Your task to perform on an android device: Do I have any events today? Image 0: 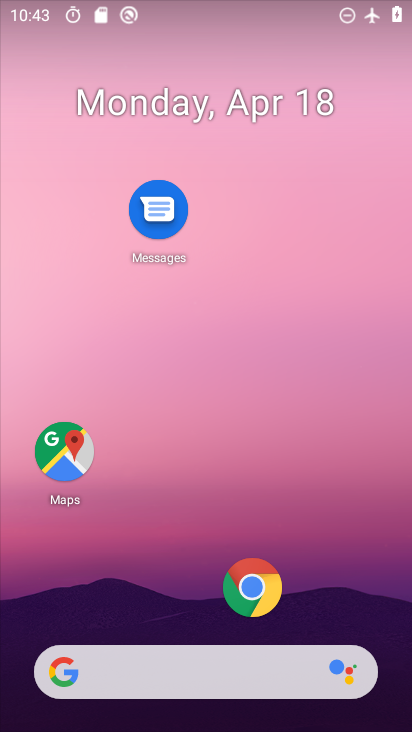
Step 0: drag from (181, 623) to (267, 40)
Your task to perform on an android device: Do I have any events today? Image 1: 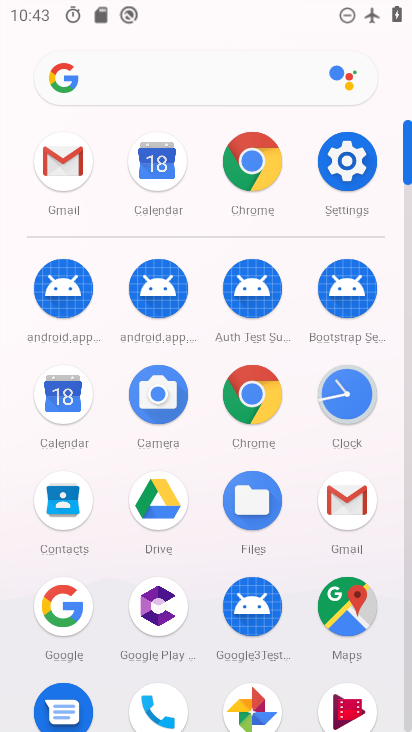
Step 1: click (63, 409)
Your task to perform on an android device: Do I have any events today? Image 2: 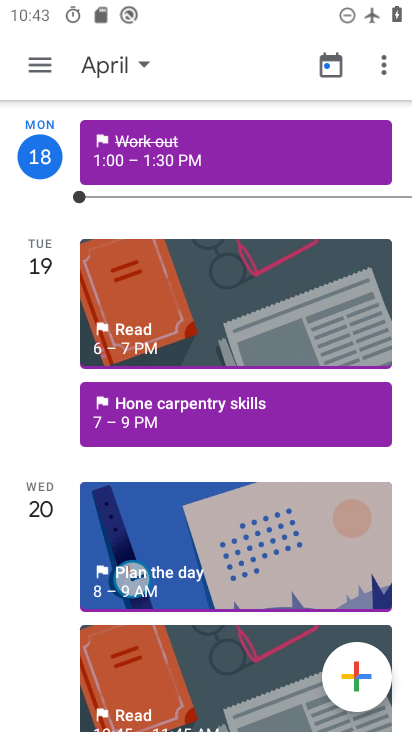
Step 2: drag from (186, 507) to (217, 265)
Your task to perform on an android device: Do I have any events today? Image 3: 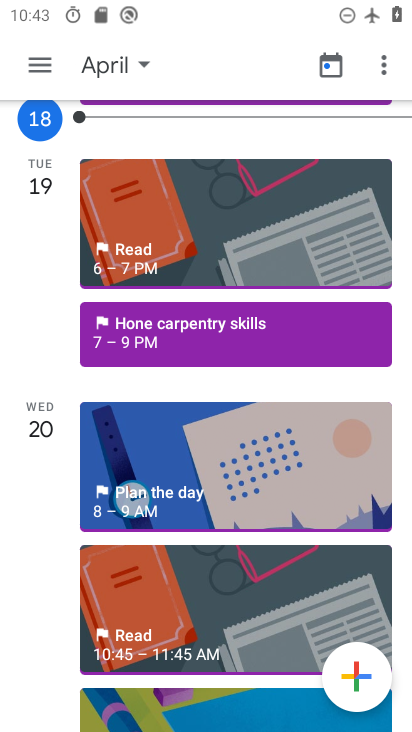
Step 3: drag from (187, 302) to (188, 521)
Your task to perform on an android device: Do I have any events today? Image 4: 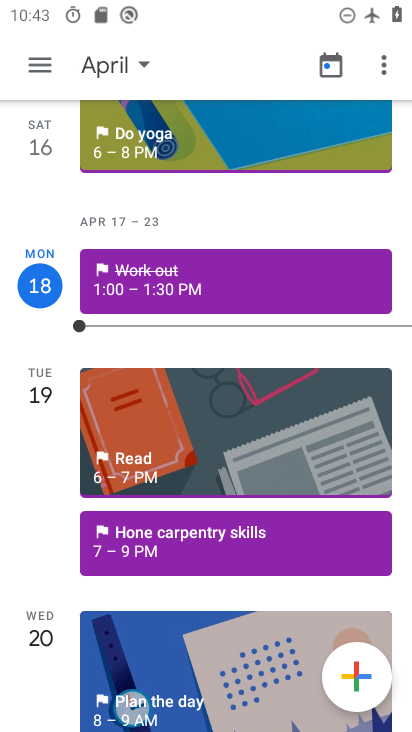
Step 4: click (181, 282)
Your task to perform on an android device: Do I have any events today? Image 5: 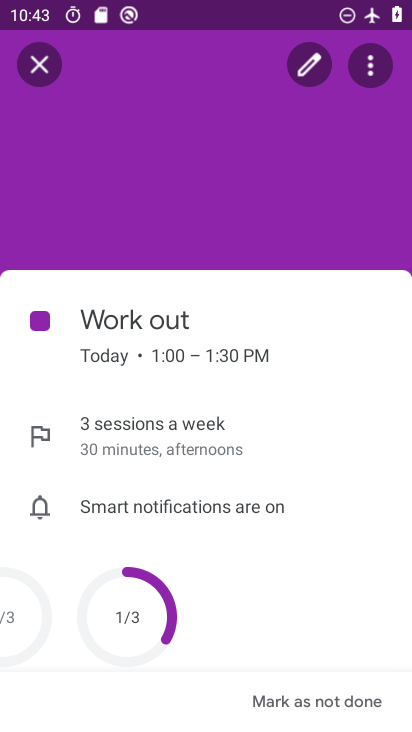
Step 5: task complete